Your task to perform on an android device: change notification settings in the gmail app Image 0: 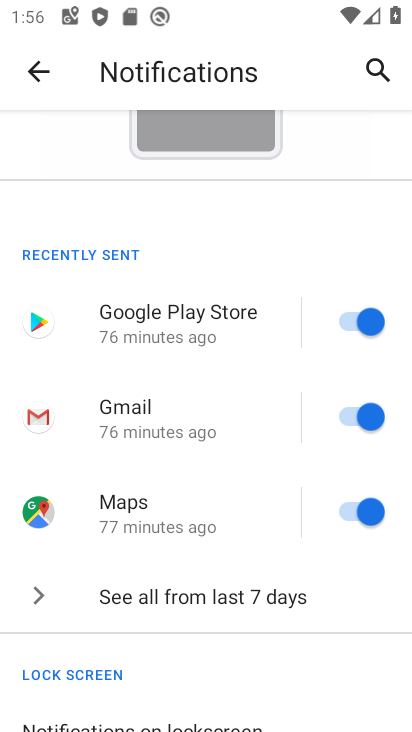
Step 0: press home button
Your task to perform on an android device: change notification settings in the gmail app Image 1: 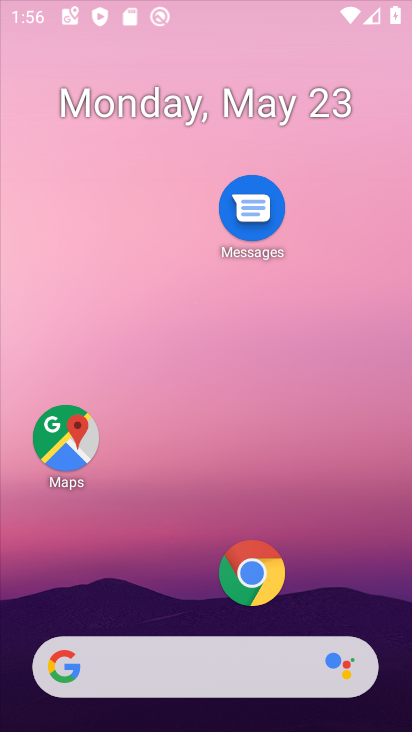
Step 1: drag from (244, 501) to (276, 12)
Your task to perform on an android device: change notification settings in the gmail app Image 2: 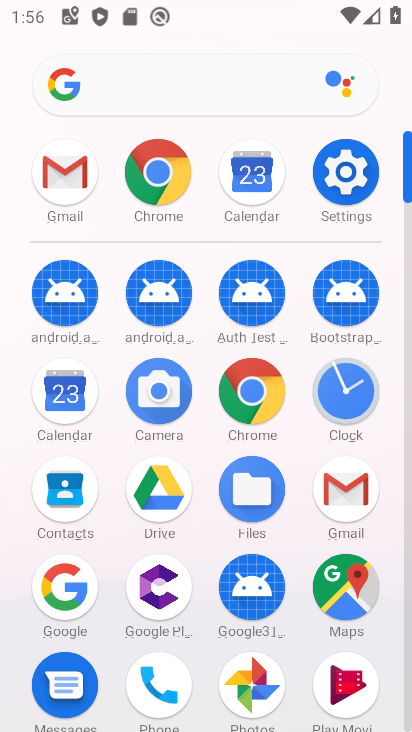
Step 2: click (314, 466)
Your task to perform on an android device: change notification settings in the gmail app Image 3: 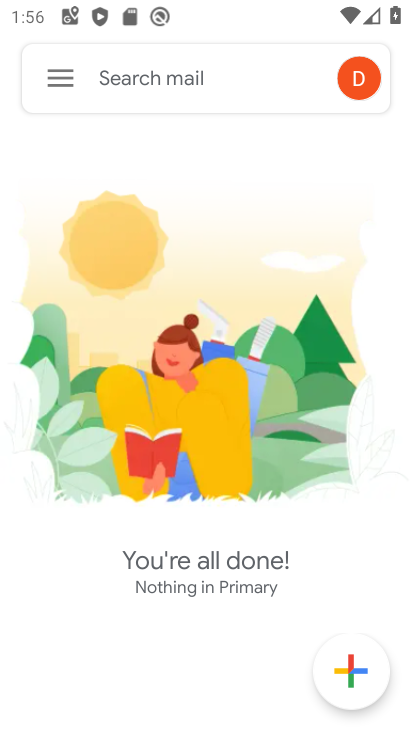
Step 3: click (52, 69)
Your task to perform on an android device: change notification settings in the gmail app Image 4: 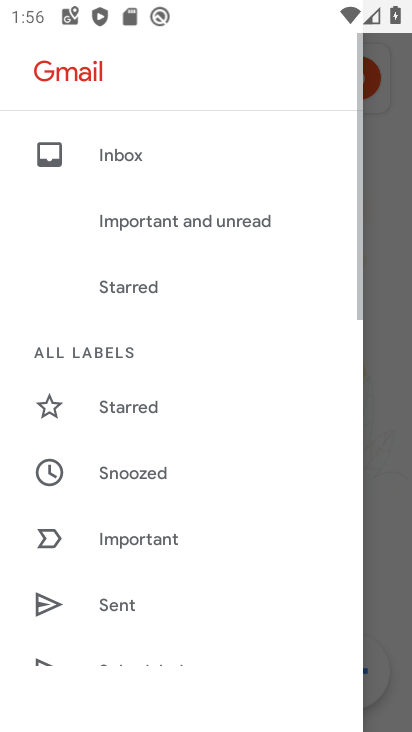
Step 4: drag from (320, 500) to (261, 175)
Your task to perform on an android device: change notification settings in the gmail app Image 5: 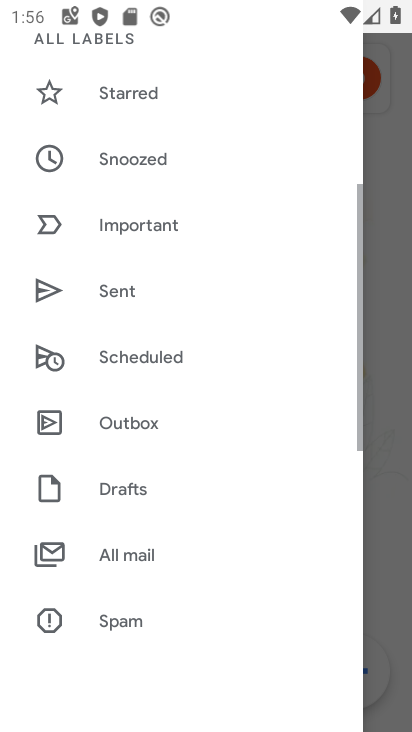
Step 5: drag from (270, 302) to (260, 259)
Your task to perform on an android device: change notification settings in the gmail app Image 6: 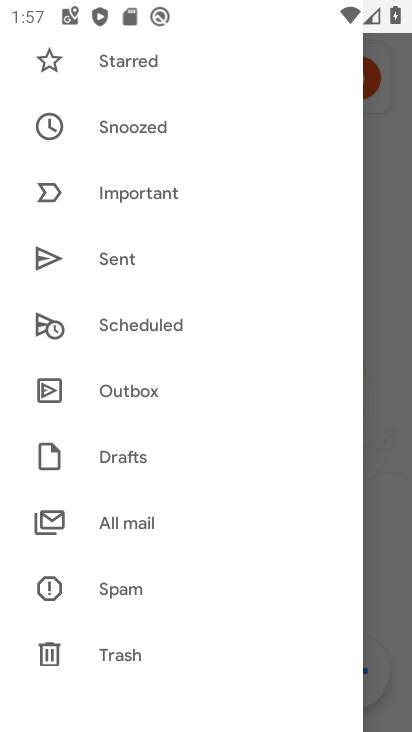
Step 6: drag from (224, 632) to (145, 36)
Your task to perform on an android device: change notification settings in the gmail app Image 7: 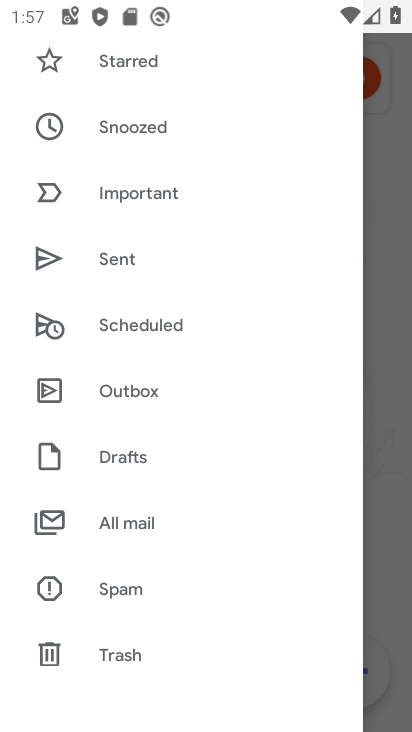
Step 7: drag from (184, 631) to (218, 124)
Your task to perform on an android device: change notification settings in the gmail app Image 8: 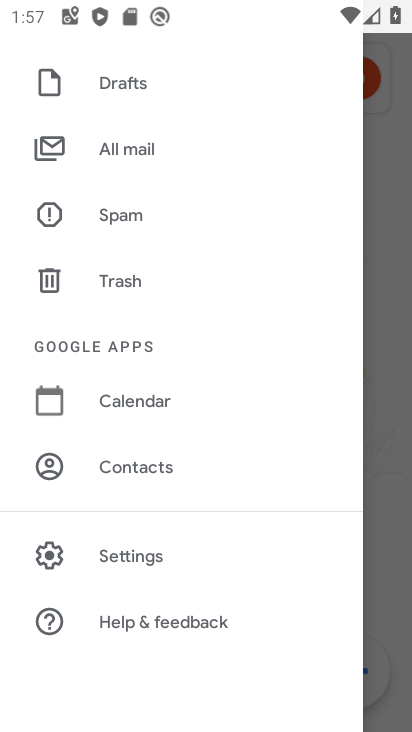
Step 8: click (154, 569)
Your task to perform on an android device: change notification settings in the gmail app Image 9: 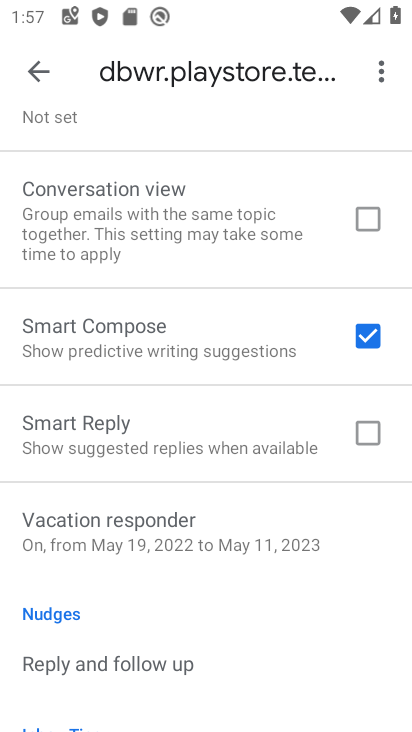
Step 9: drag from (113, 295) to (215, 644)
Your task to perform on an android device: change notification settings in the gmail app Image 10: 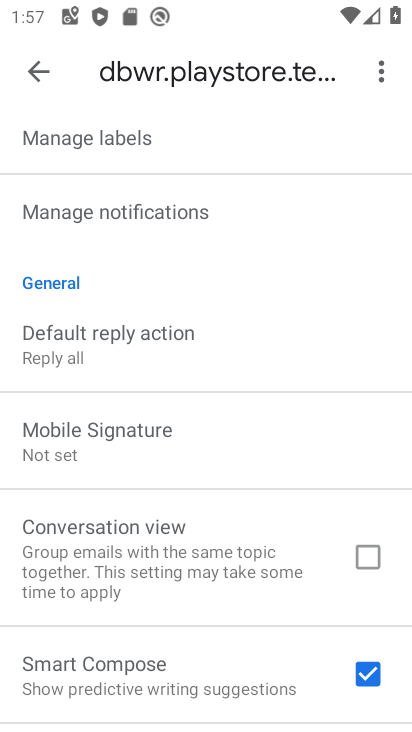
Step 10: click (161, 224)
Your task to perform on an android device: change notification settings in the gmail app Image 11: 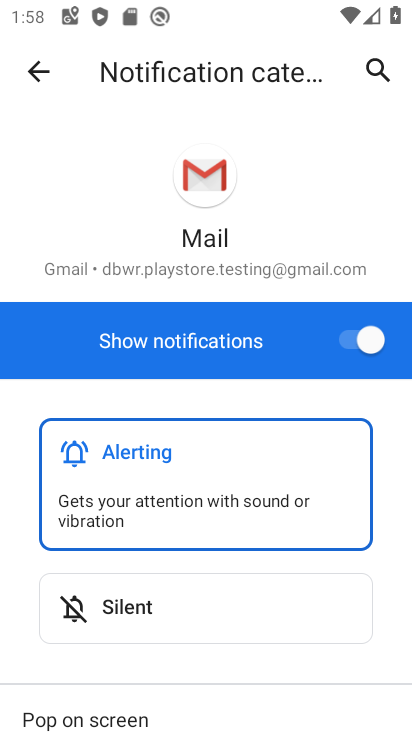
Step 11: click (349, 342)
Your task to perform on an android device: change notification settings in the gmail app Image 12: 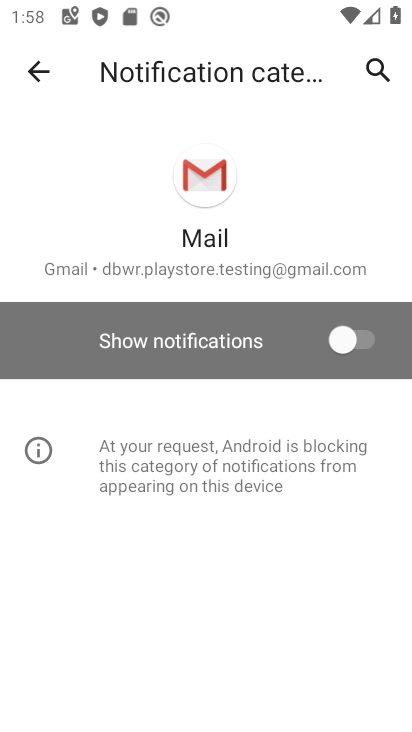
Step 12: task complete